Your task to perform on an android device: Go to Wikipedia Image 0: 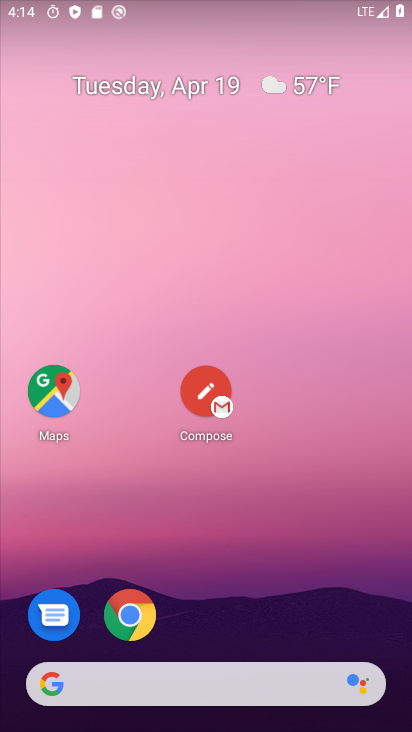
Step 0: drag from (269, 596) to (253, 82)
Your task to perform on an android device: Go to Wikipedia Image 1: 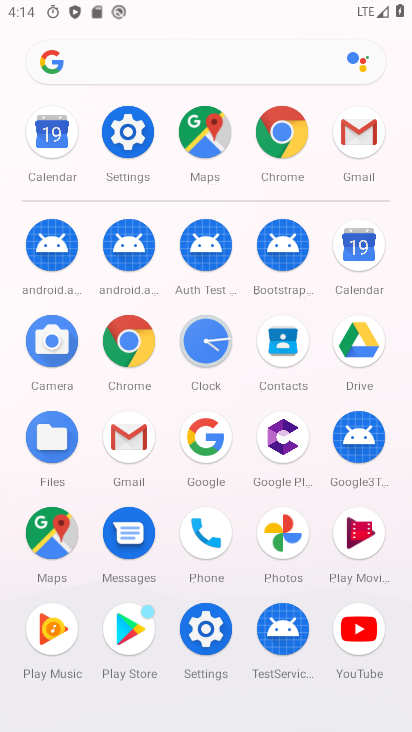
Step 1: click (132, 340)
Your task to perform on an android device: Go to Wikipedia Image 2: 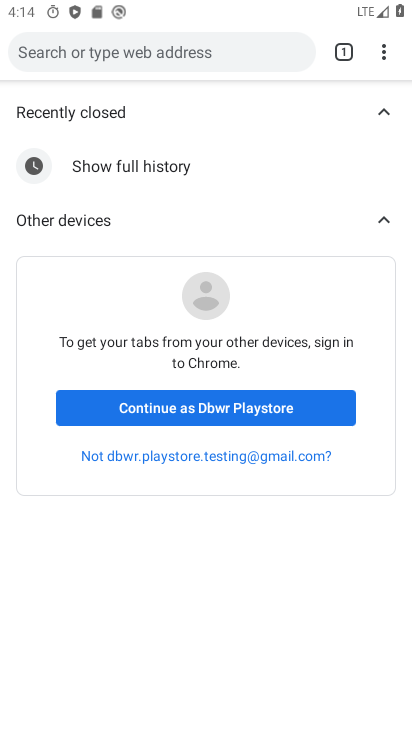
Step 2: click (244, 43)
Your task to perform on an android device: Go to Wikipedia Image 3: 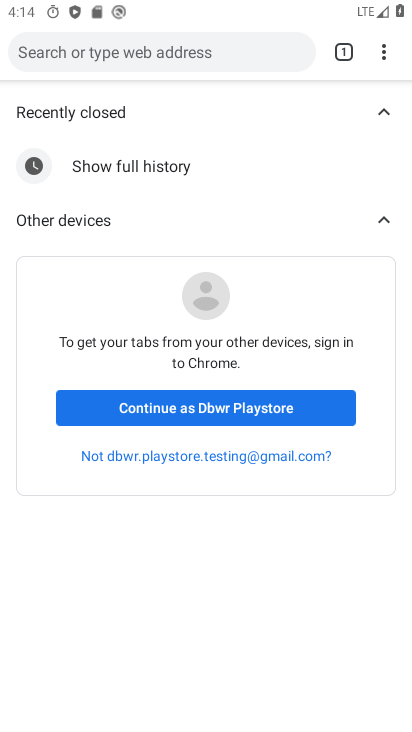
Step 3: click (239, 55)
Your task to perform on an android device: Go to Wikipedia Image 4: 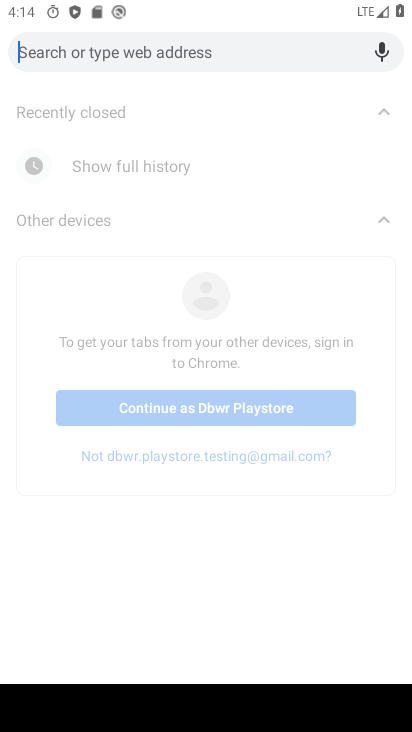
Step 4: type "wikipedia"
Your task to perform on an android device: Go to Wikipedia Image 5: 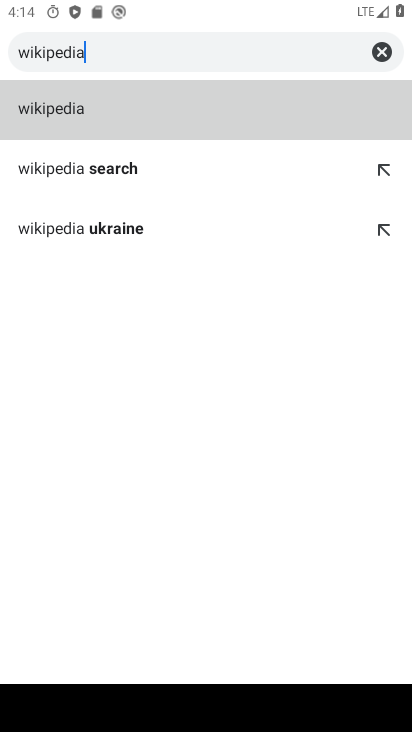
Step 5: click (251, 117)
Your task to perform on an android device: Go to Wikipedia Image 6: 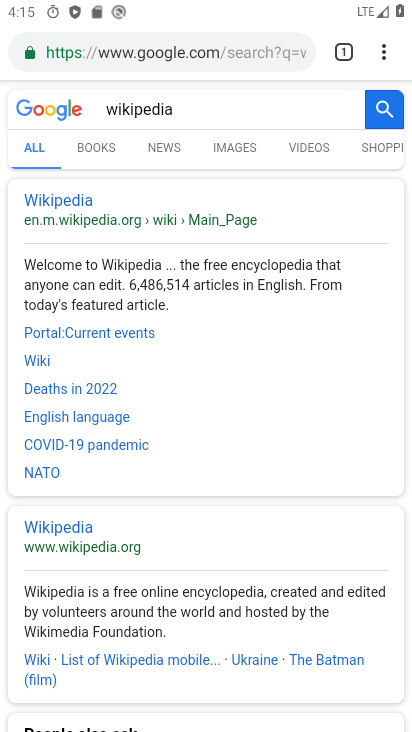
Step 6: task complete